Your task to perform on an android device: turn off location Image 0: 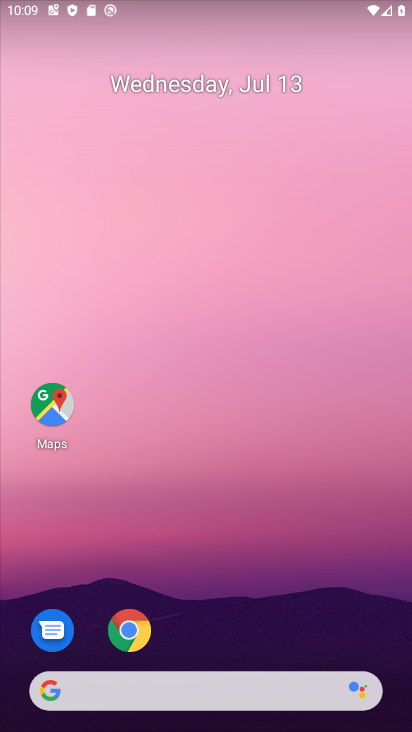
Step 0: drag from (298, 557) to (346, 52)
Your task to perform on an android device: turn off location Image 1: 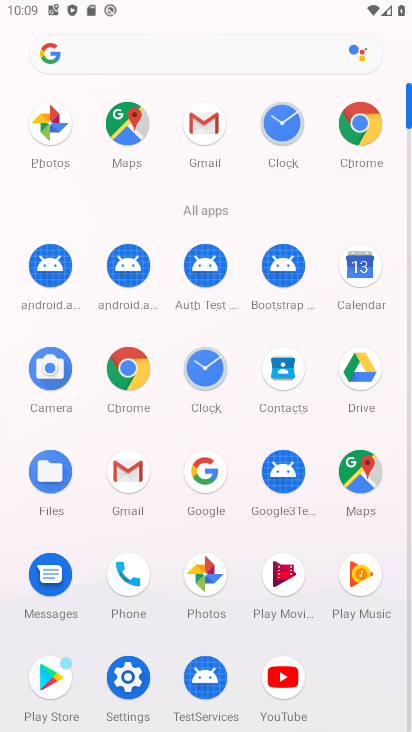
Step 1: click (127, 684)
Your task to perform on an android device: turn off location Image 2: 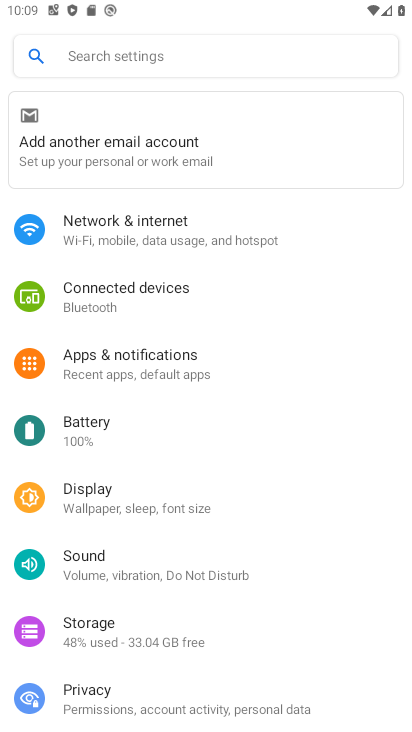
Step 2: drag from (122, 650) to (189, 338)
Your task to perform on an android device: turn off location Image 3: 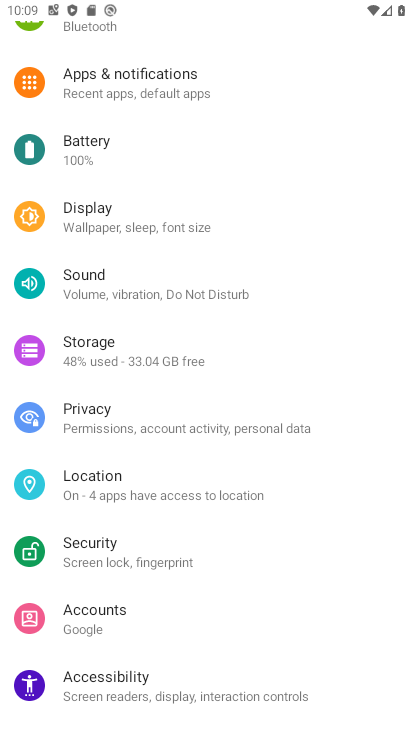
Step 3: click (118, 491)
Your task to perform on an android device: turn off location Image 4: 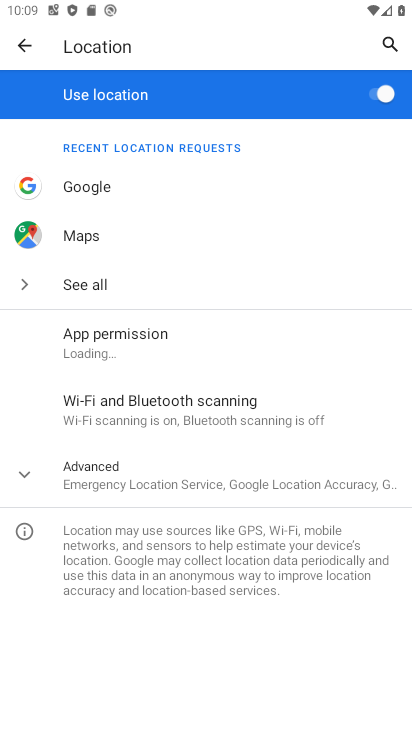
Step 4: click (384, 95)
Your task to perform on an android device: turn off location Image 5: 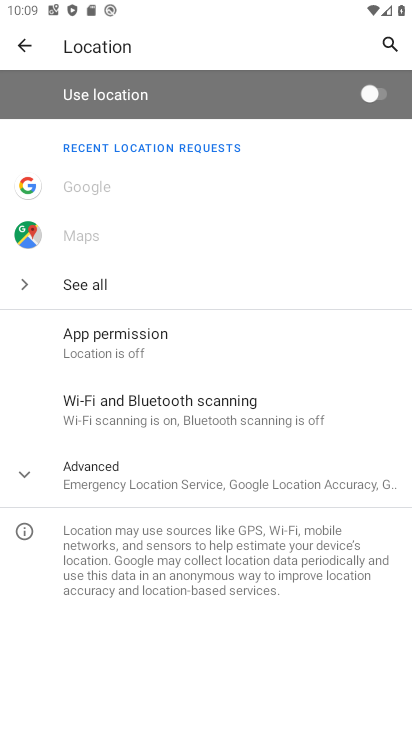
Step 5: task complete